Your task to perform on an android device: check the backup settings in the google photos Image 0: 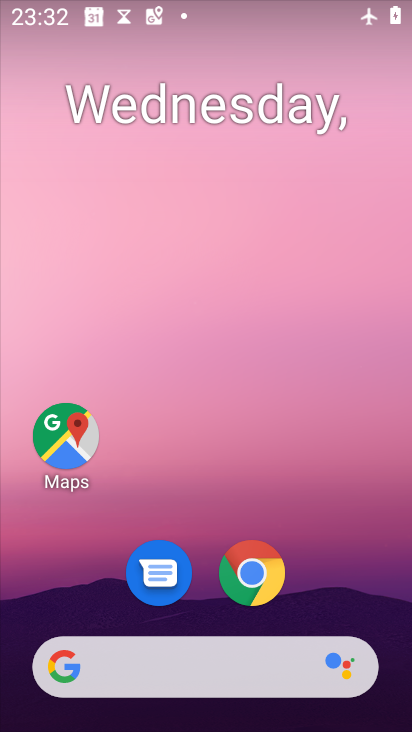
Step 0: drag from (350, 541) to (350, 153)
Your task to perform on an android device: check the backup settings in the google photos Image 1: 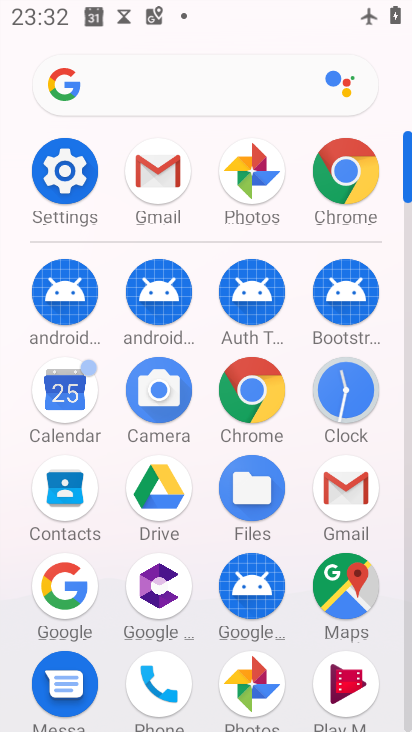
Step 1: click (248, 669)
Your task to perform on an android device: check the backup settings in the google photos Image 2: 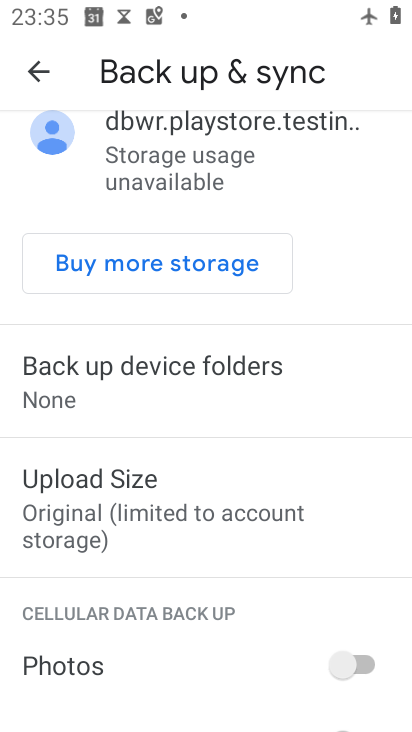
Step 2: task complete